Your task to perform on an android device: Open Wikipedia Image 0: 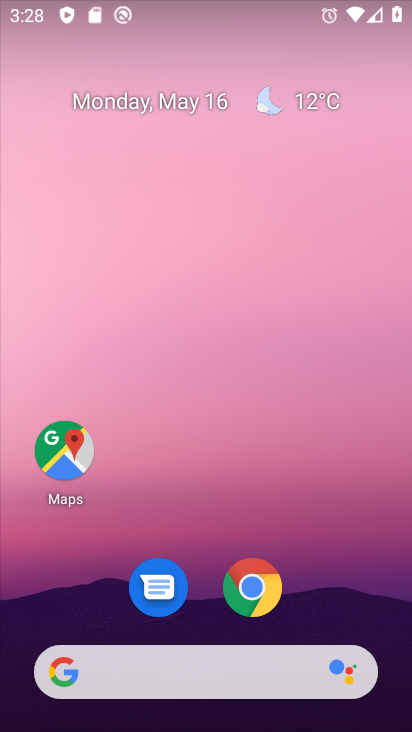
Step 0: click (253, 586)
Your task to perform on an android device: Open Wikipedia Image 1: 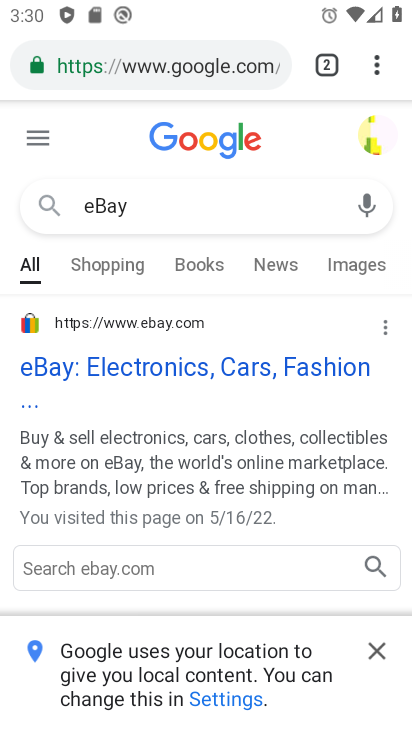
Step 1: click (282, 63)
Your task to perform on an android device: Open Wikipedia Image 2: 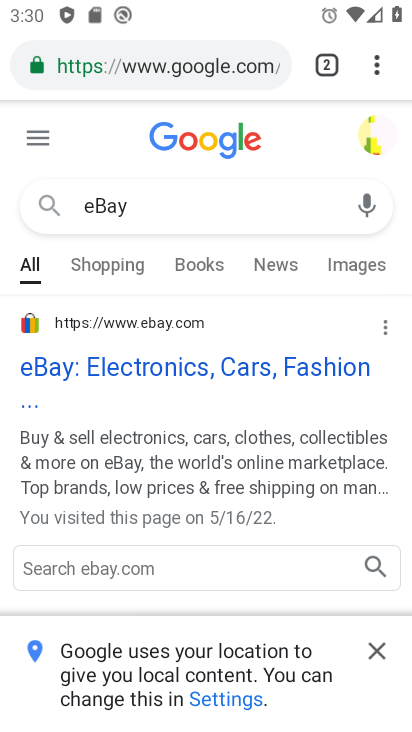
Step 2: click (276, 59)
Your task to perform on an android device: Open Wikipedia Image 3: 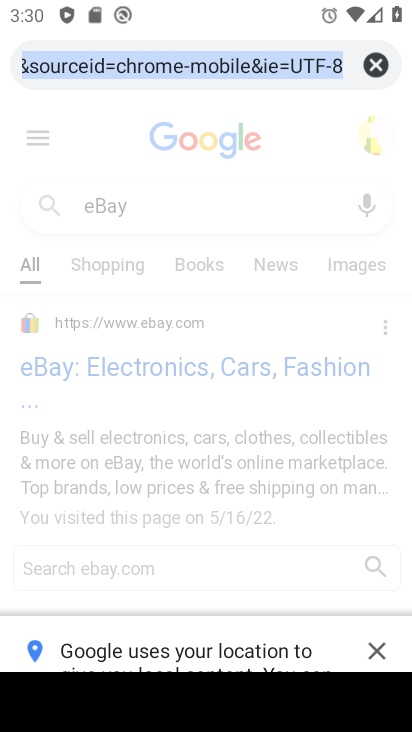
Step 3: click (366, 63)
Your task to perform on an android device: Open Wikipedia Image 4: 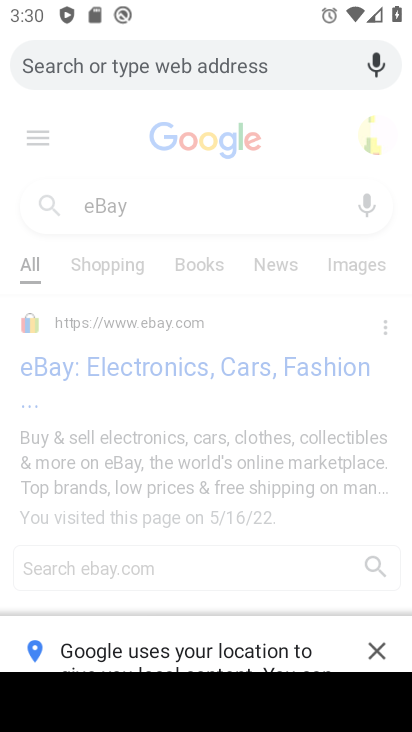
Step 4: type " Wikipedia"
Your task to perform on an android device: Open Wikipedia Image 5: 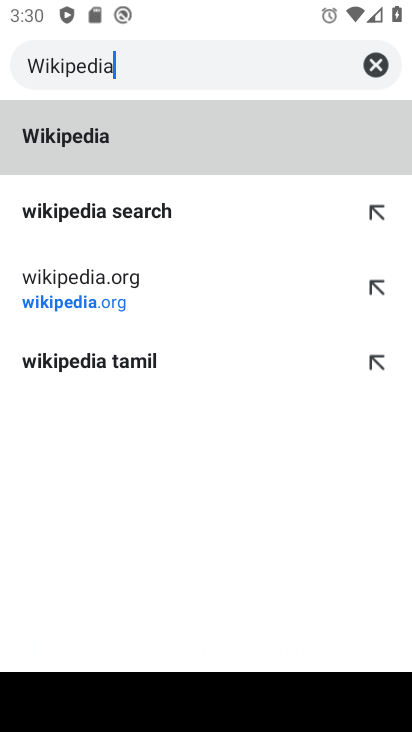
Step 5: click (82, 145)
Your task to perform on an android device: Open Wikipedia Image 6: 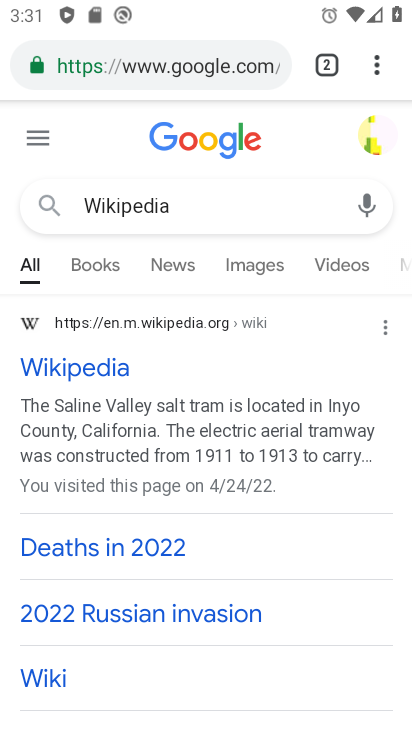
Step 6: task complete